Your task to perform on an android device: Go to Google maps Image 0: 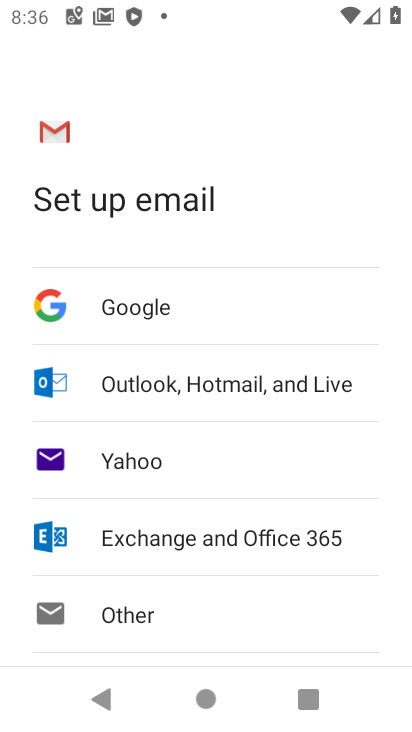
Step 0: press home button
Your task to perform on an android device: Go to Google maps Image 1: 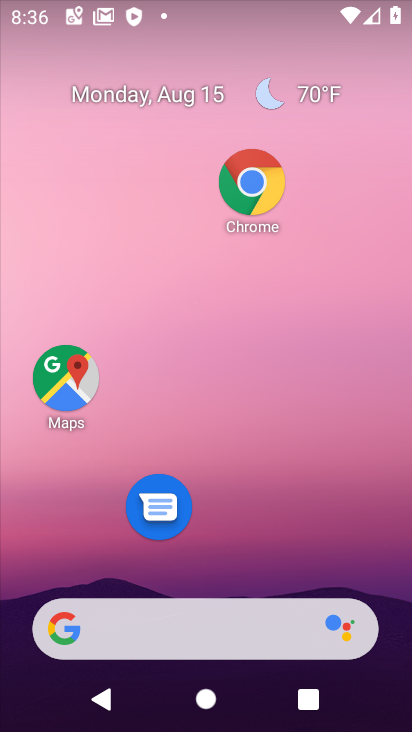
Step 1: drag from (237, 577) to (221, 29)
Your task to perform on an android device: Go to Google maps Image 2: 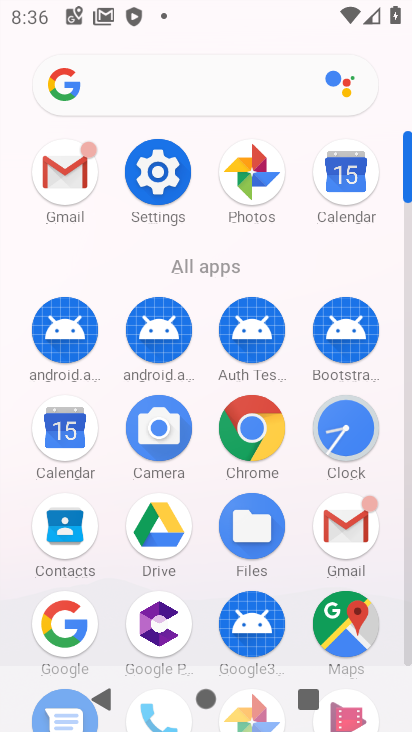
Step 2: click (366, 634)
Your task to perform on an android device: Go to Google maps Image 3: 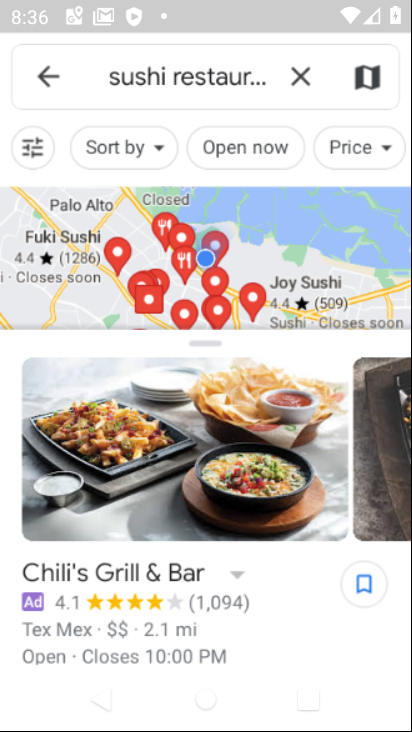
Step 3: task complete